Your task to perform on an android device: search for starred emails in the gmail app Image 0: 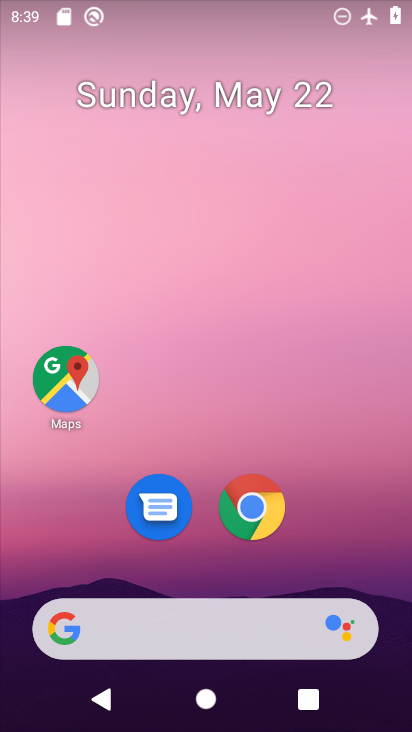
Step 0: drag from (158, 702) to (238, 8)
Your task to perform on an android device: search for starred emails in the gmail app Image 1: 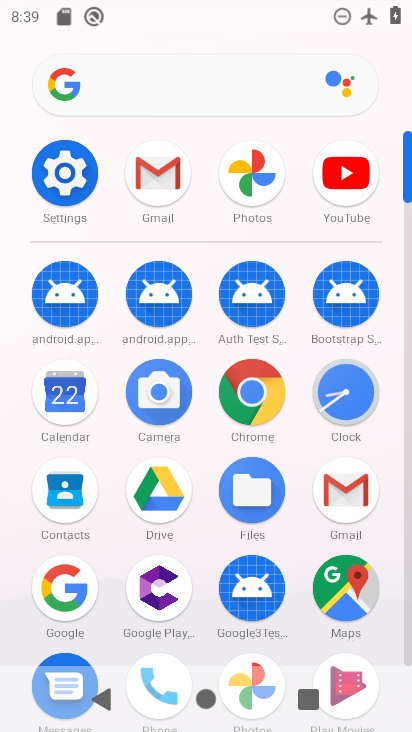
Step 1: click (167, 169)
Your task to perform on an android device: search for starred emails in the gmail app Image 2: 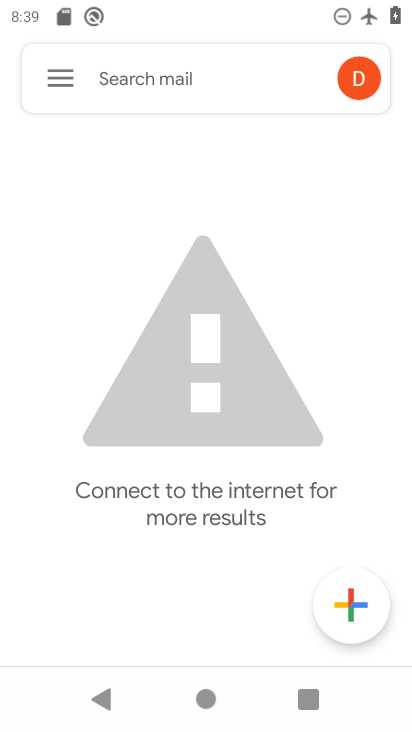
Step 2: task complete